Your task to perform on an android device: Open the calendar and show me this week's events Image 0: 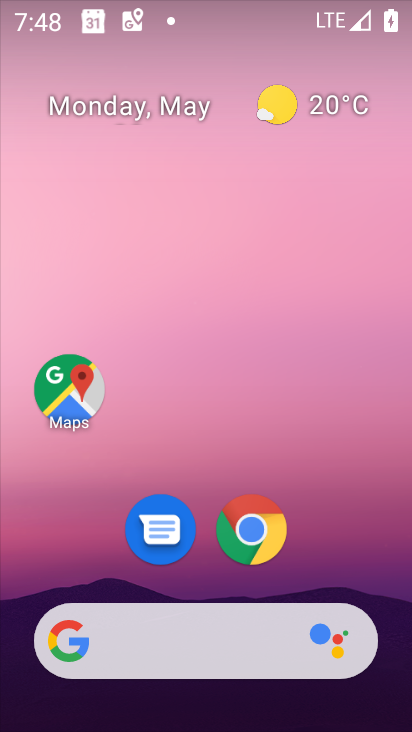
Step 0: drag from (218, 581) to (193, 327)
Your task to perform on an android device: Open the calendar and show me this week's events Image 1: 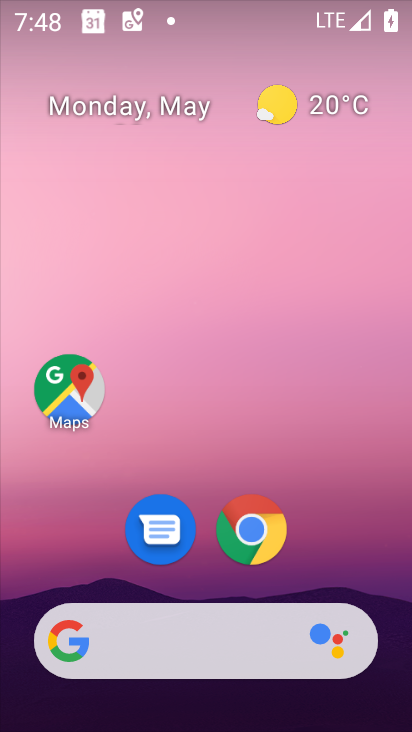
Step 1: drag from (21, 646) to (212, 138)
Your task to perform on an android device: Open the calendar and show me this week's events Image 2: 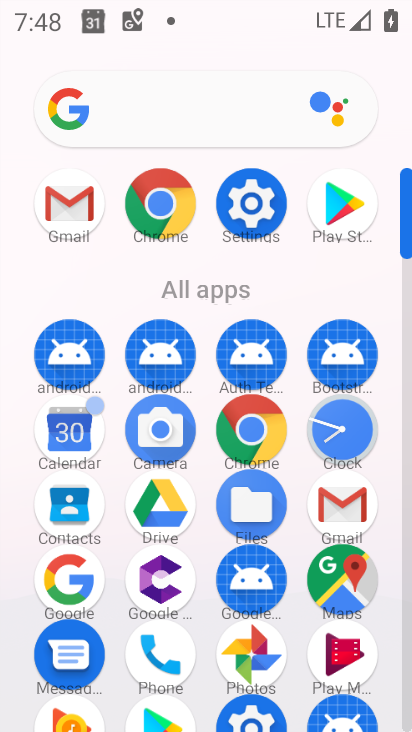
Step 2: click (81, 413)
Your task to perform on an android device: Open the calendar and show me this week's events Image 3: 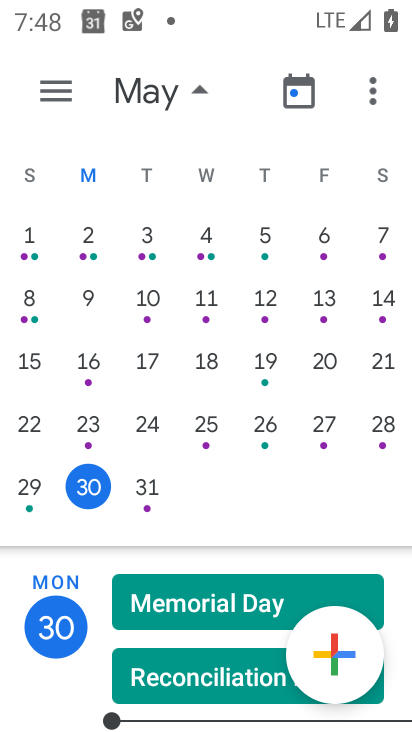
Step 3: click (94, 487)
Your task to perform on an android device: Open the calendar and show me this week's events Image 4: 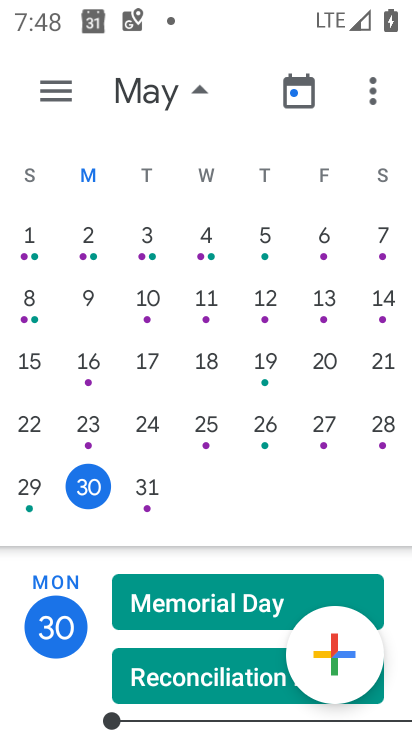
Step 4: click (140, 500)
Your task to perform on an android device: Open the calendar and show me this week's events Image 5: 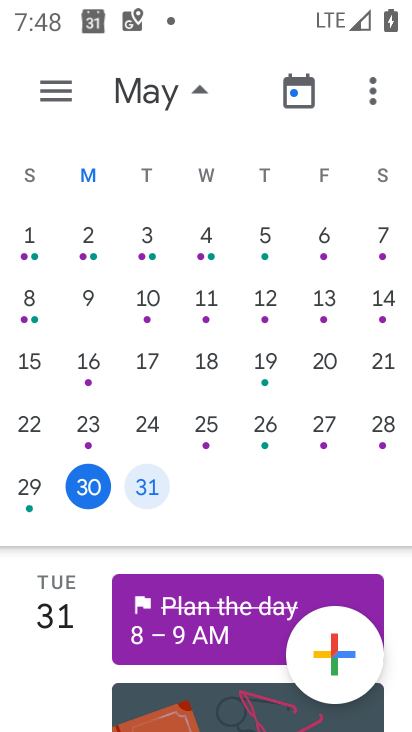
Step 5: task complete